Your task to perform on an android device: change your default location settings in chrome Image 0: 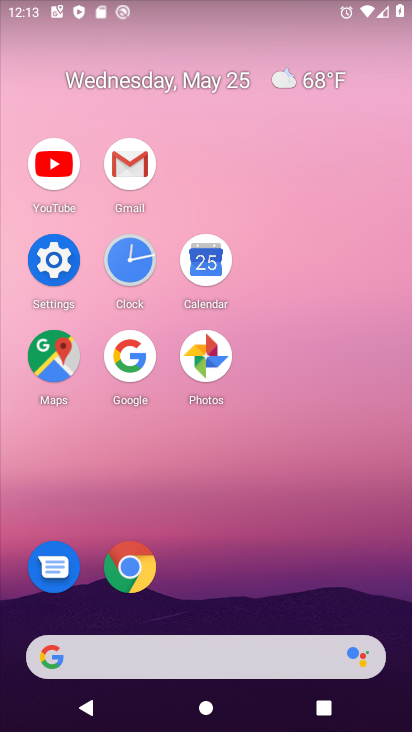
Step 0: click (129, 567)
Your task to perform on an android device: change your default location settings in chrome Image 1: 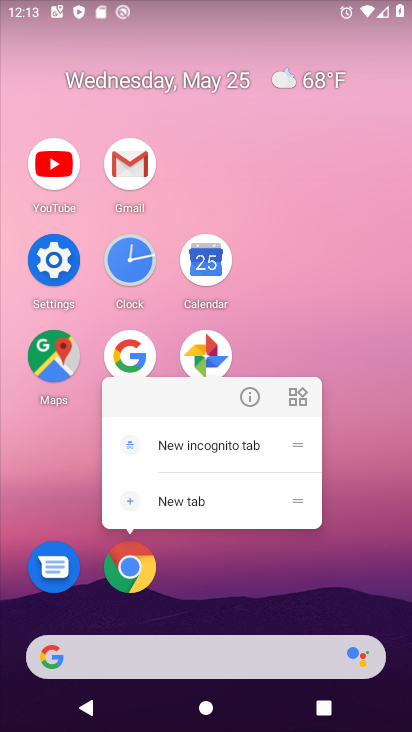
Step 1: click (119, 562)
Your task to perform on an android device: change your default location settings in chrome Image 2: 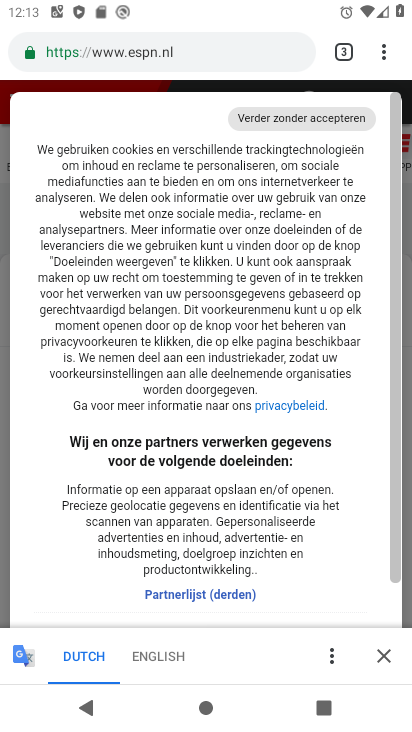
Step 2: click (382, 58)
Your task to perform on an android device: change your default location settings in chrome Image 3: 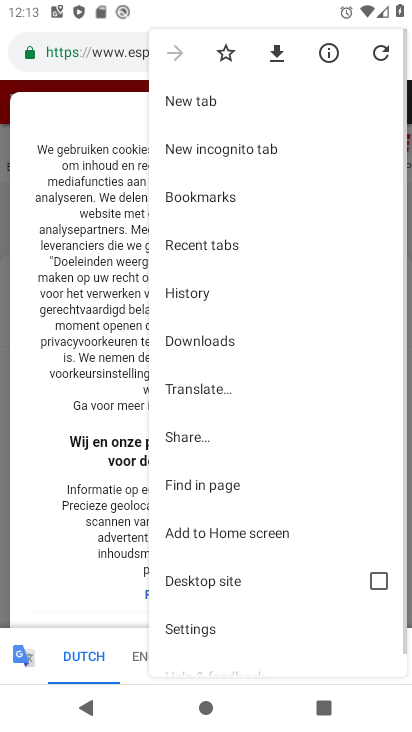
Step 3: drag from (271, 518) to (269, 207)
Your task to perform on an android device: change your default location settings in chrome Image 4: 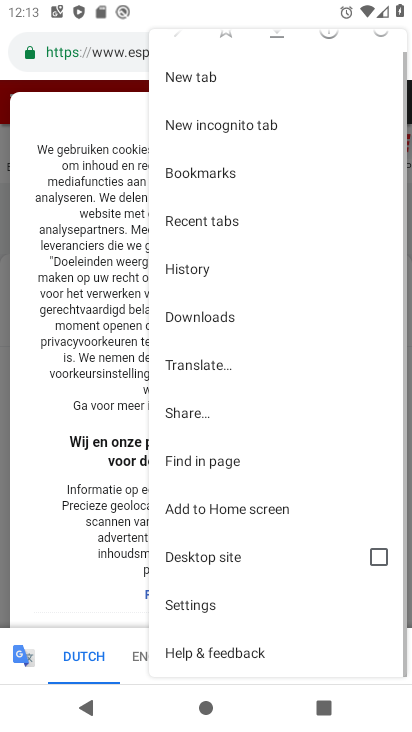
Step 4: click (245, 605)
Your task to perform on an android device: change your default location settings in chrome Image 5: 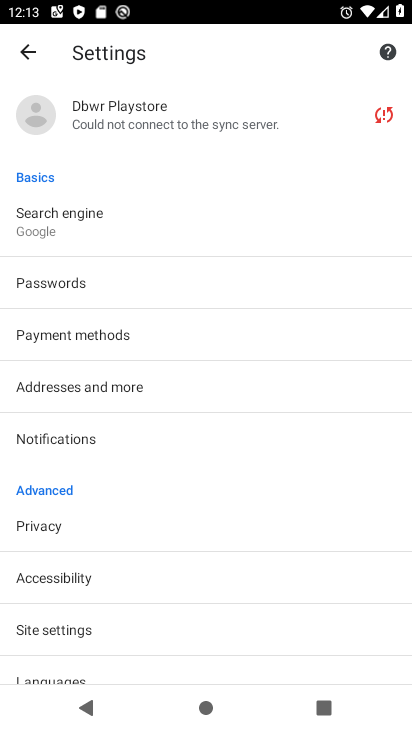
Step 5: drag from (154, 481) to (176, 237)
Your task to perform on an android device: change your default location settings in chrome Image 6: 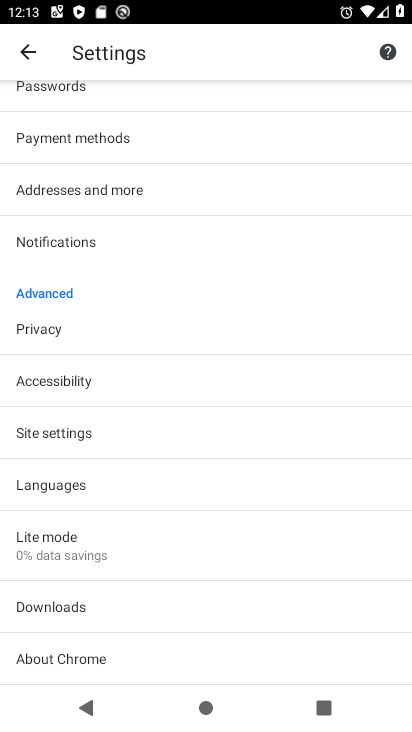
Step 6: click (136, 438)
Your task to perform on an android device: change your default location settings in chrome Image 7: 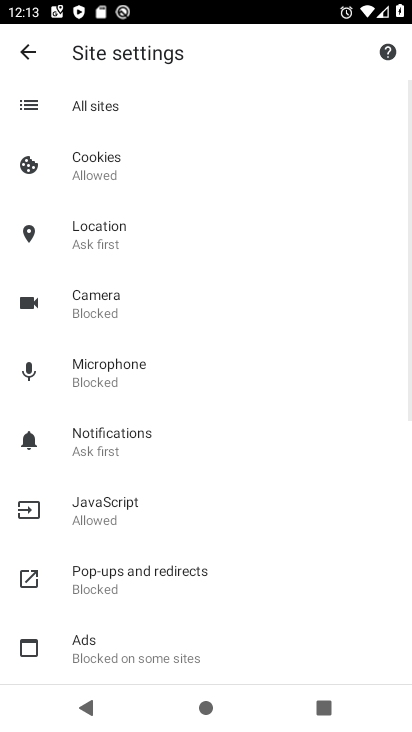
Step 7: click (192, 229)
Your task to perform on an android device: change your default location settings in chrome Image 8: 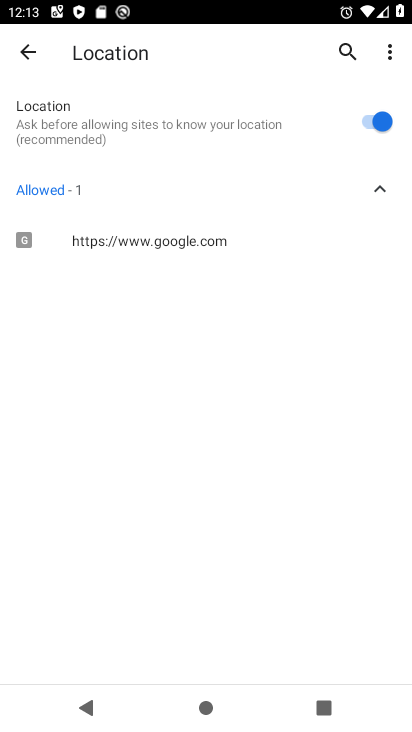
Step 8: click (378, 127)
Your task to perform on an android device: change your default location settings in chrome Image 9: 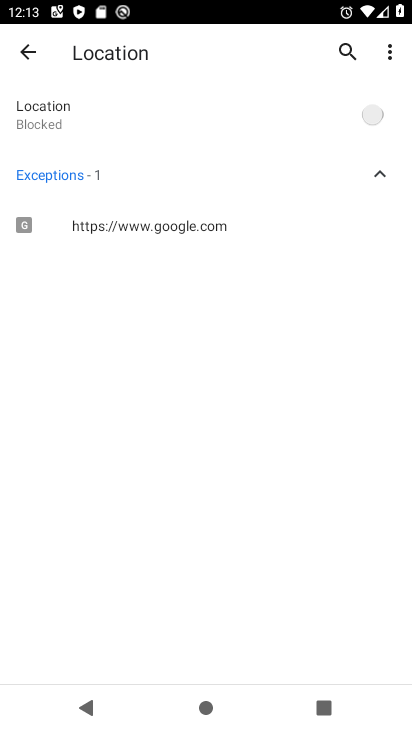
Step 9: task complete